Your task to perform on an android device: turn off priority inbox in the gmail app Image 0: 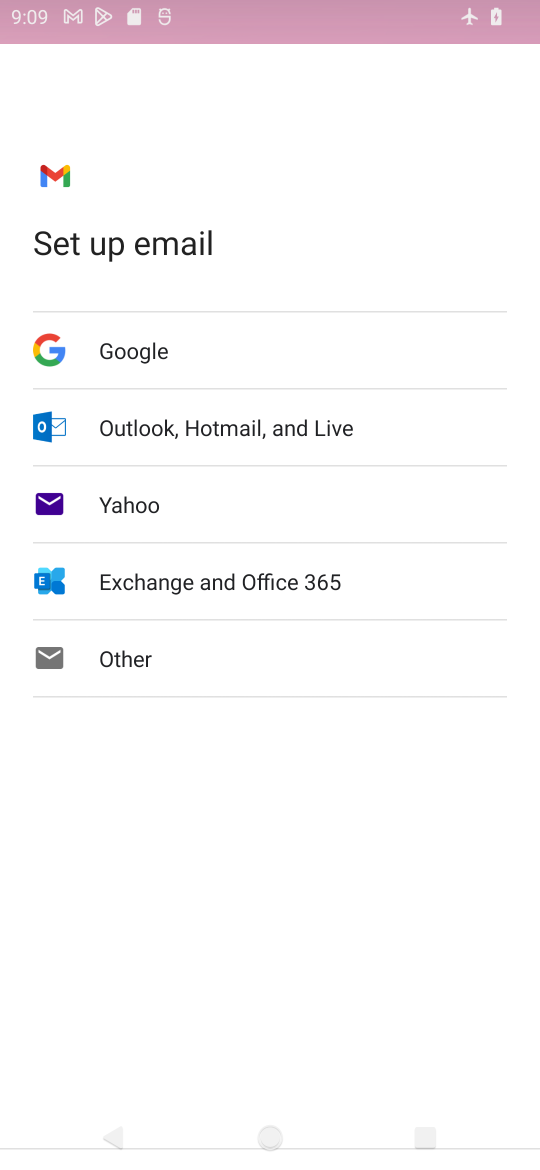
Step 0: press home button
Your task to perform on an android device: turn off priority inbox in the gmail app Image 1: 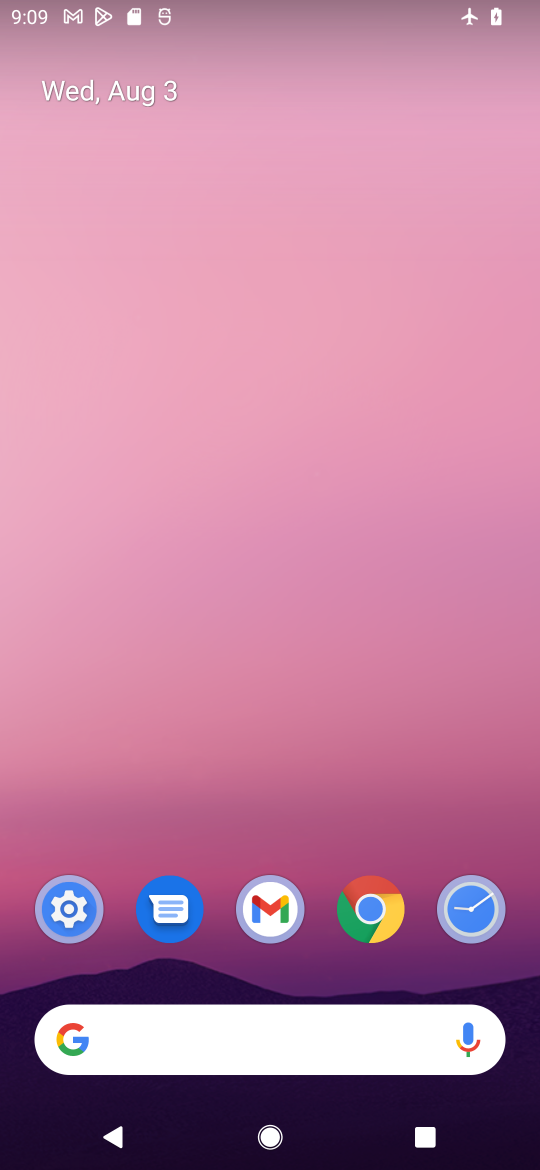
Step 1: drag from (349, 805) to (357, 266)
Your task to perform on an android device: turn off priority inbox in the gmail app Image 2: 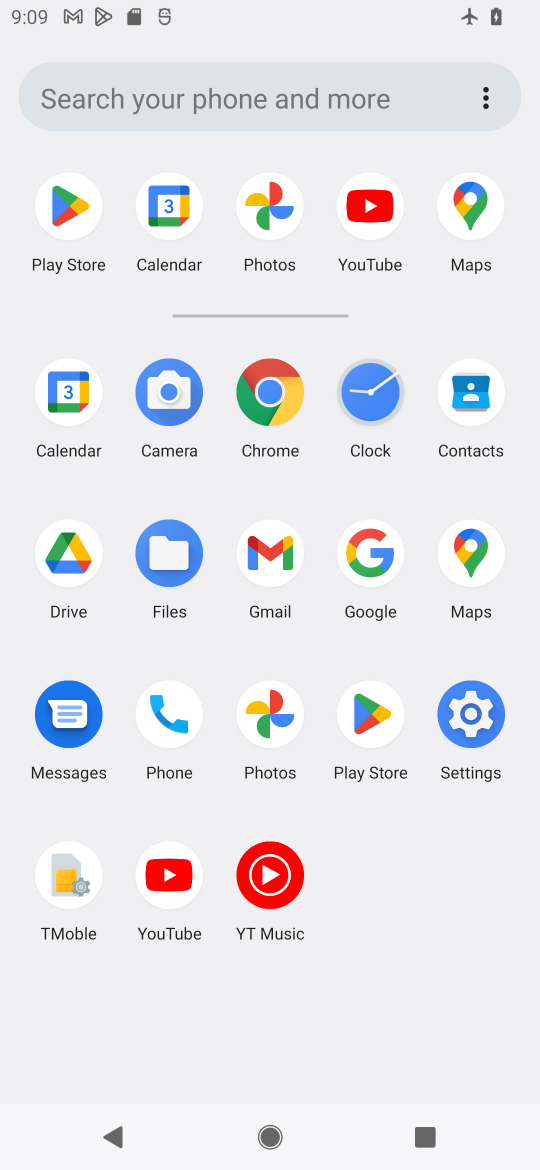
Step 2: click (278, 550)
Your task to perform on an android device: turn off priority inbox in the gmail app Image 3: 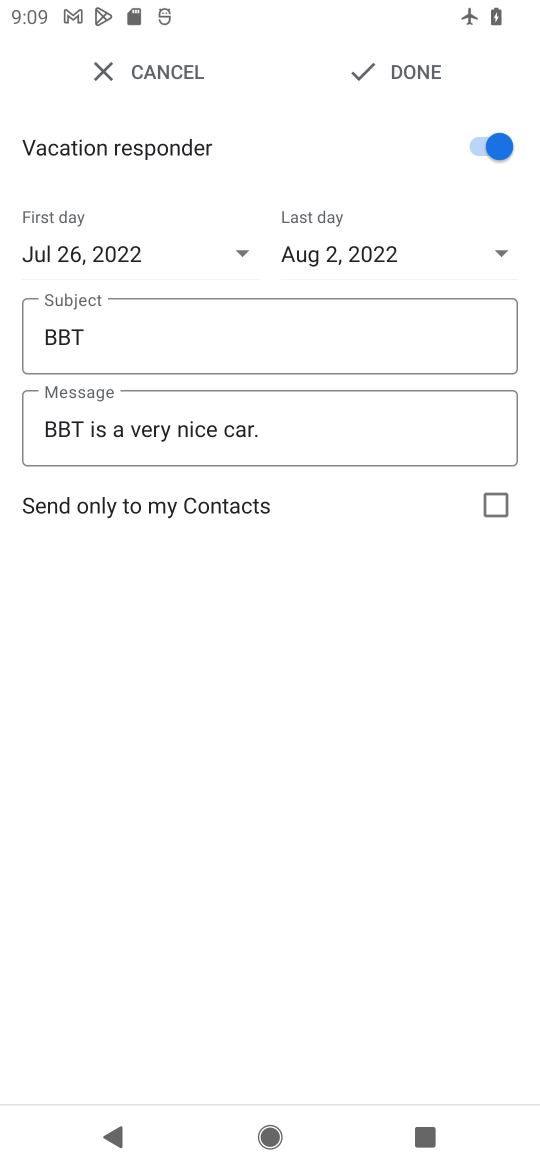
Step 3: press back button
Your task to perform on an android device: turn off priority inbox in the gmail app Image 4: 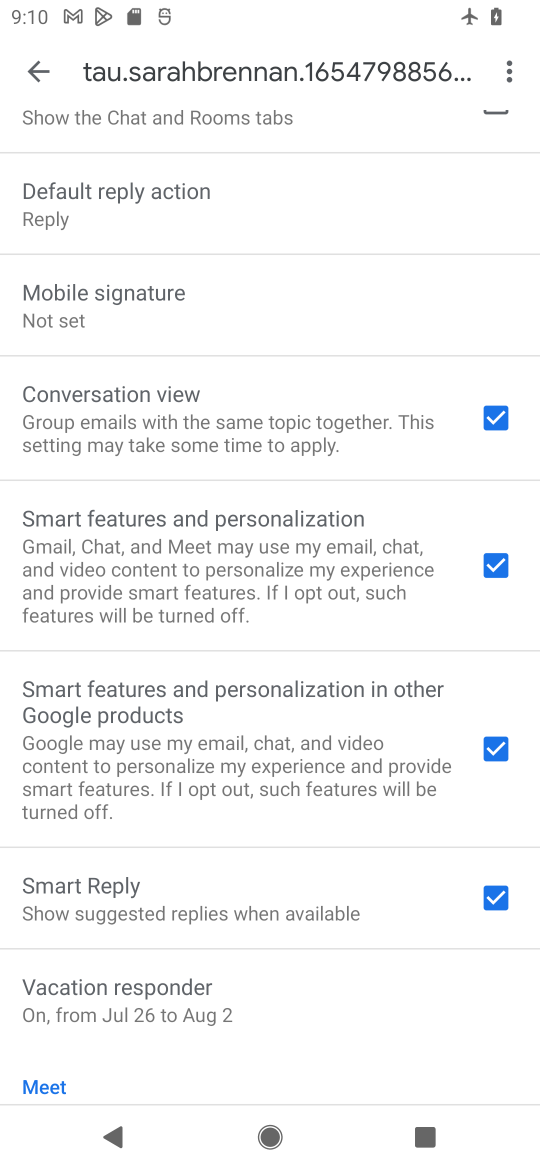
Step 4: press back button
Your task to perform on an android device: turn off priority inbox in the gmail app Image 5: 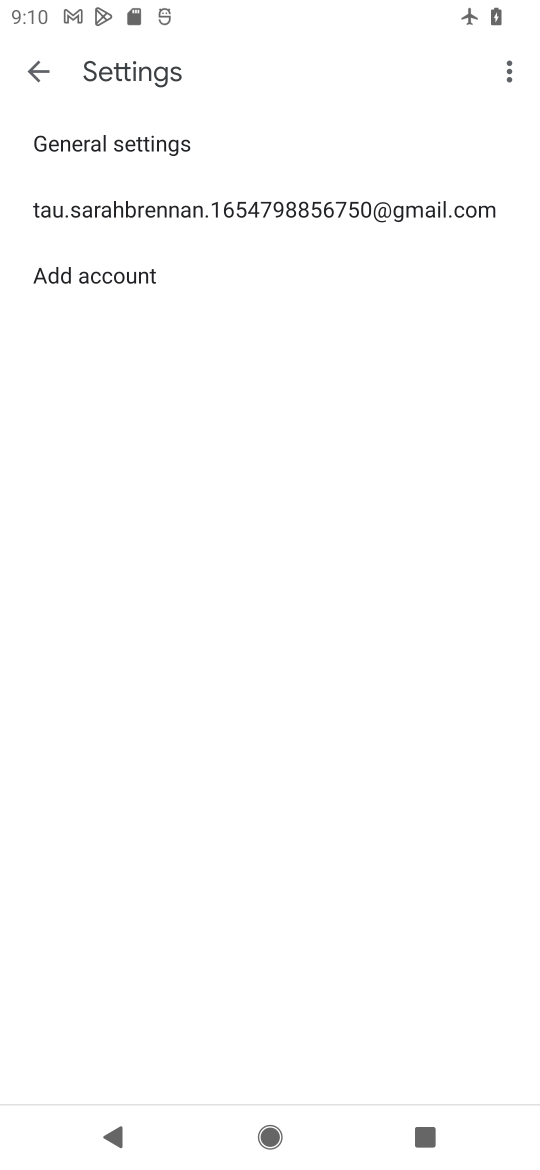
Step 5: press back button
Your task to perform on an android device: turn off priority inbox in the gmail app Image 6: 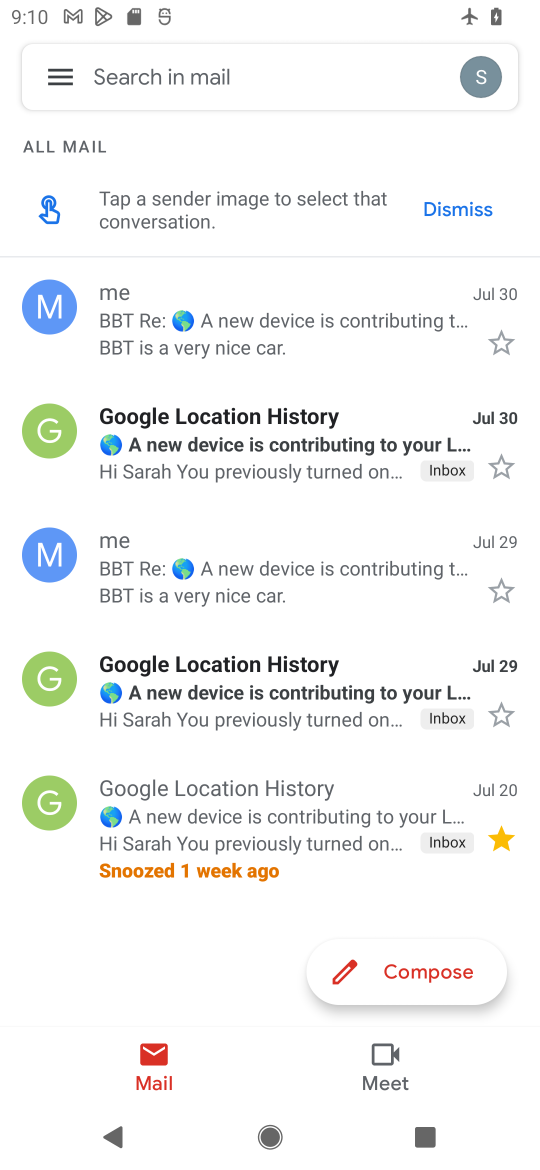
Step 6: click (60, 77)
Your task to perform on an android device: turn off priority inbox in the gmail app Image 7: 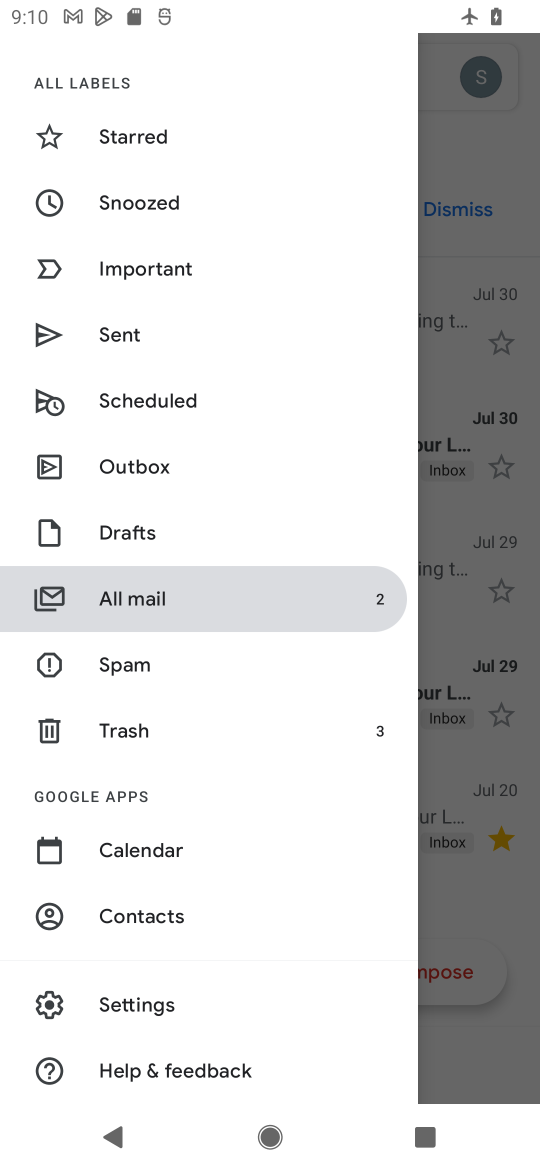
Step 7: drag from (283, 413) to (293, 612)
Your task to perform on an android device: turn off priority inbox in the gmail app Image 8: 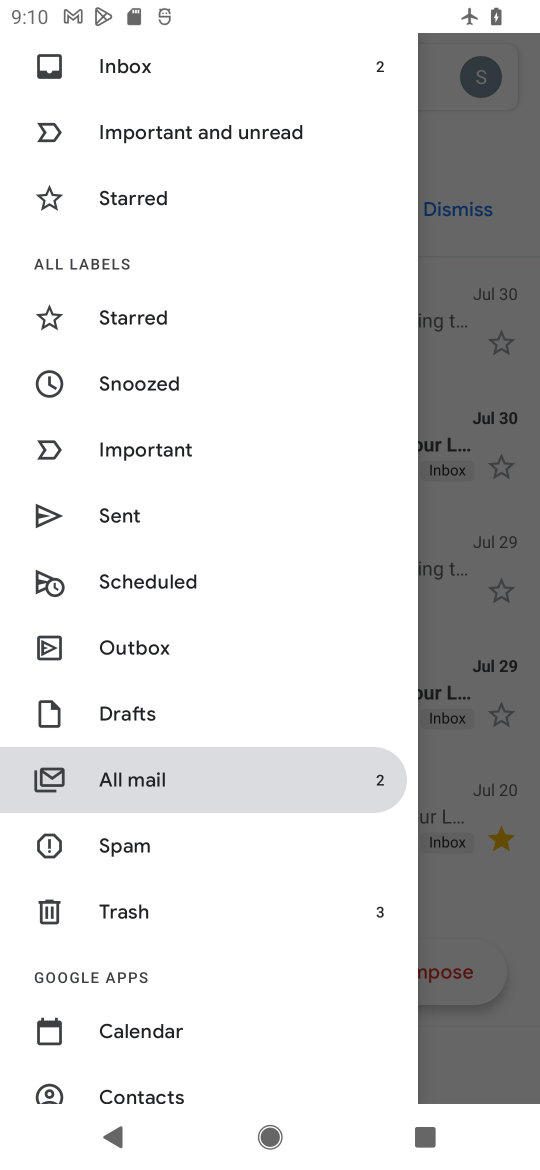
Step 8: drag from (305, 292) to (305, 581)
Your task to perform on an android device: turn off priority inbox in the gmail app Image 9: 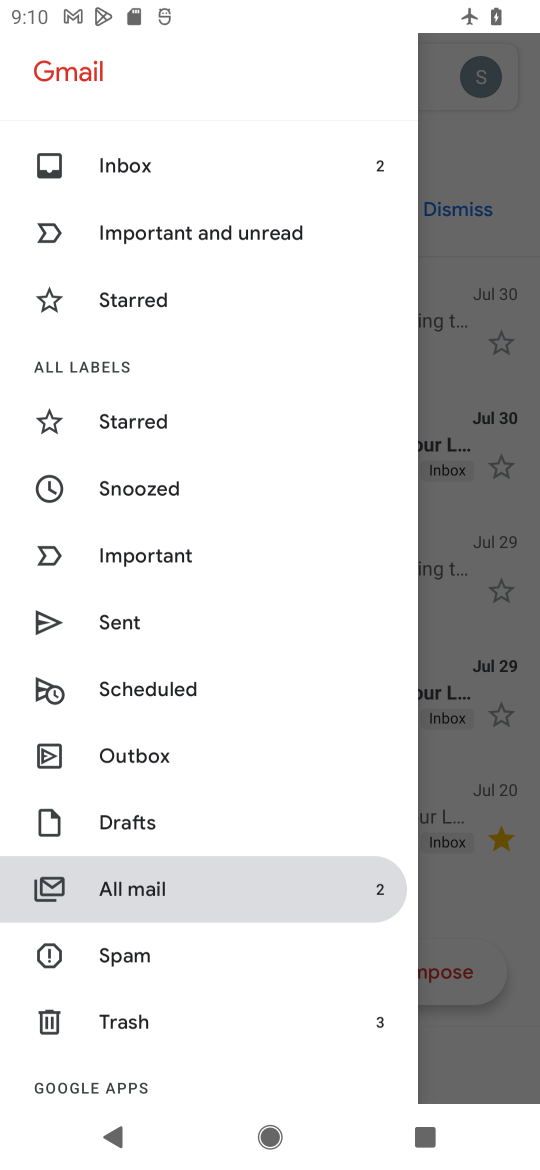
Step 9: drag from (304, 646) to (304, 432)
Your task to perform on an android device: turn off priority inbox in the gmail app Image 10: 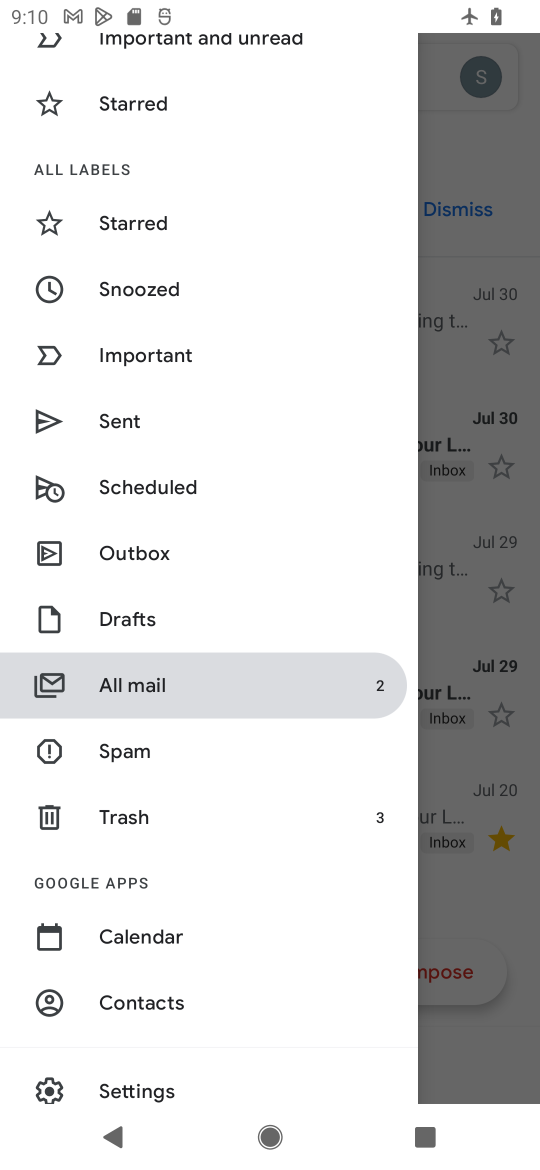
Step 10: drag from (258, 759) to (270, 577)
Your task to perform on an android device: turn off priority inbox in the gmail app Image 11: 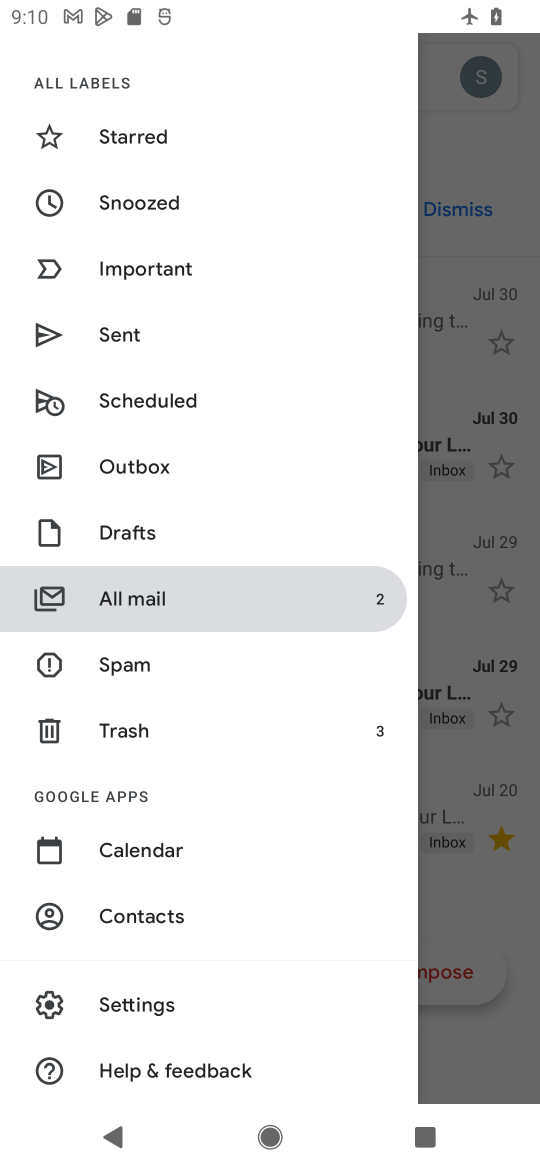
Step 11: click (167, 1002)
Your task to perform on an android device: turn off priority inbox in the gmail app Image 12: 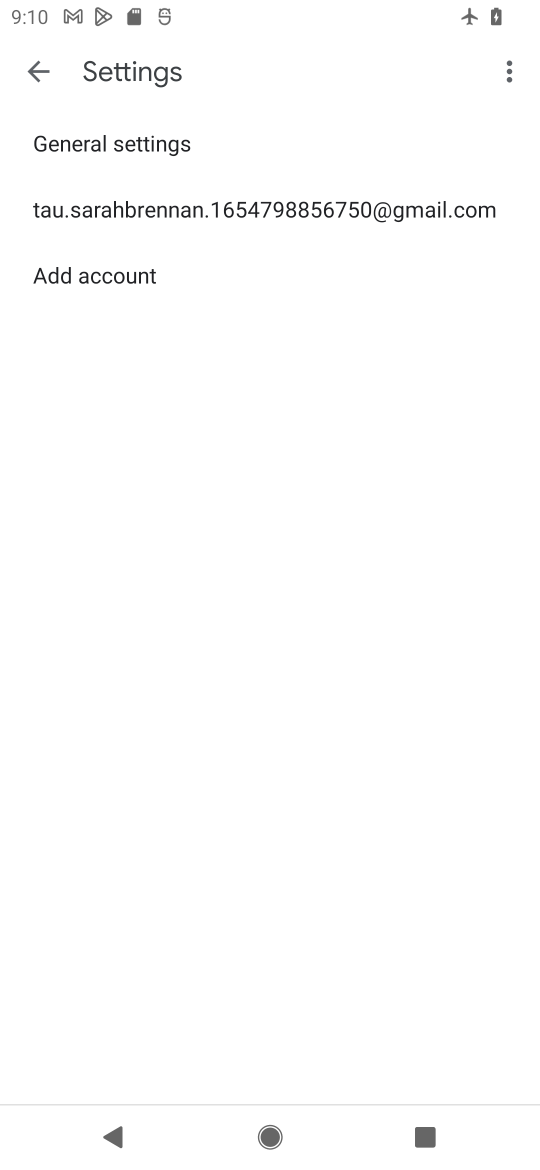
Step 12: click (254, 205)
Your task to perform on an android device: turn off priority inbox in the gmail app Image 13: 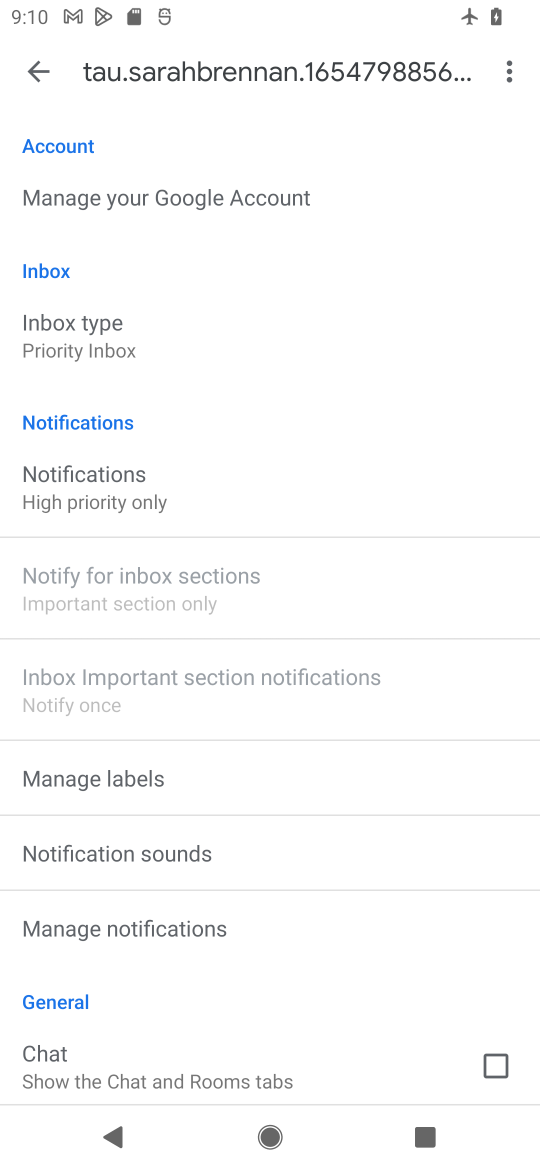
Step 13: click (136, 325)
Your task to perform on an android device: turn off priority inbox in the gmail app Image 14: 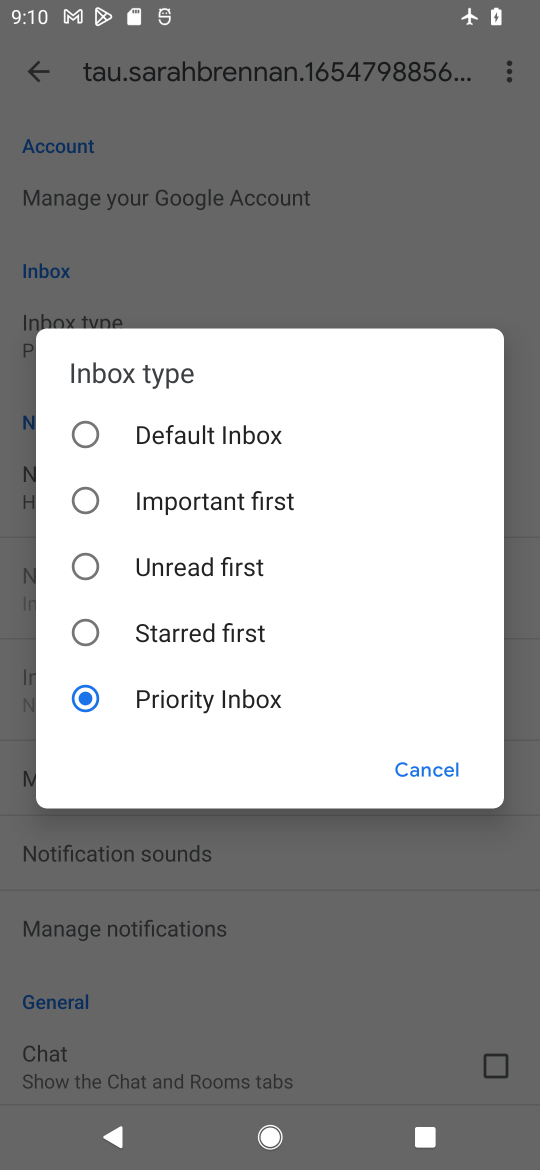
Step 14: click (166, 499)
Your task to perform on an android device: turn off priority inbox in the gmail app Image 15: 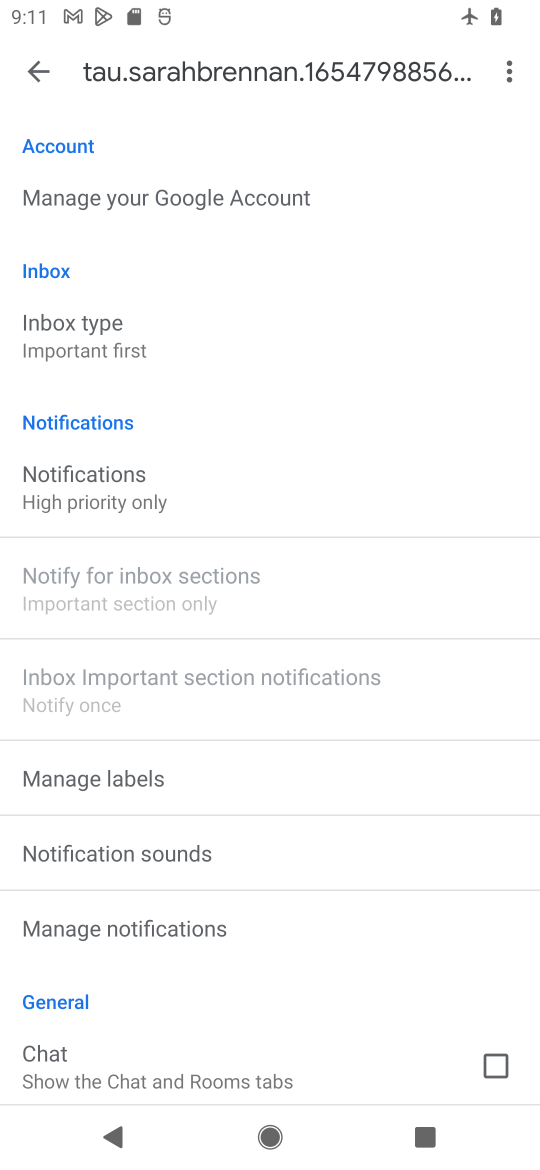
Step 15: task complete